Your task to perform on an android device: Open ESPN.com Image 0: 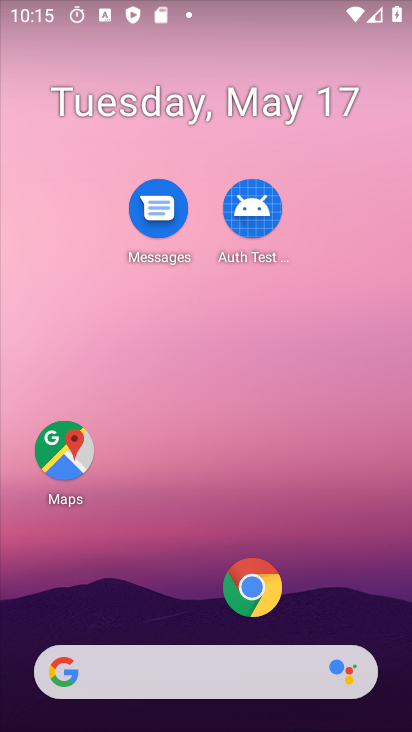
Step 0: drag from (203, 550) to (214, 127)
Your task to perform on an android device: Open ESPN.com Image 1: 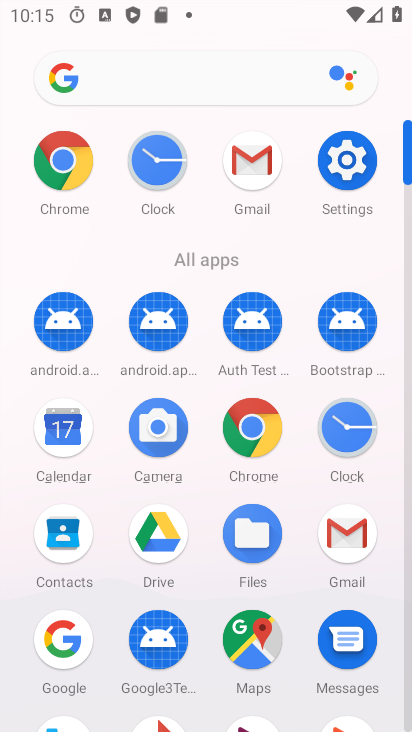
Step 1: click (251, 439)
Your task to perform on an android device: Open ESPN.com Image 2: 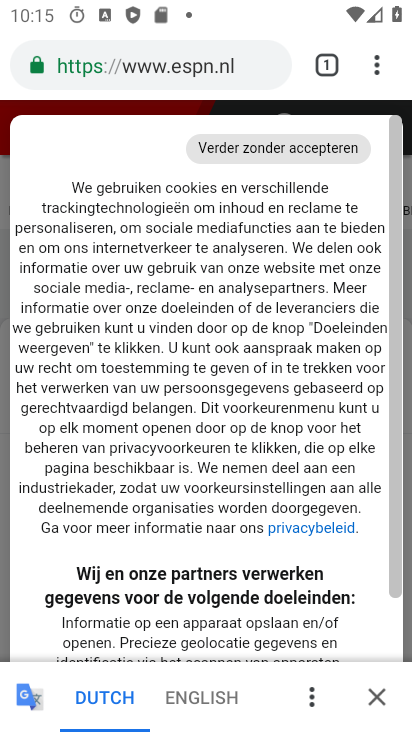
Step 2: task complete